Your task to perform on an android device: check storage Image 0: 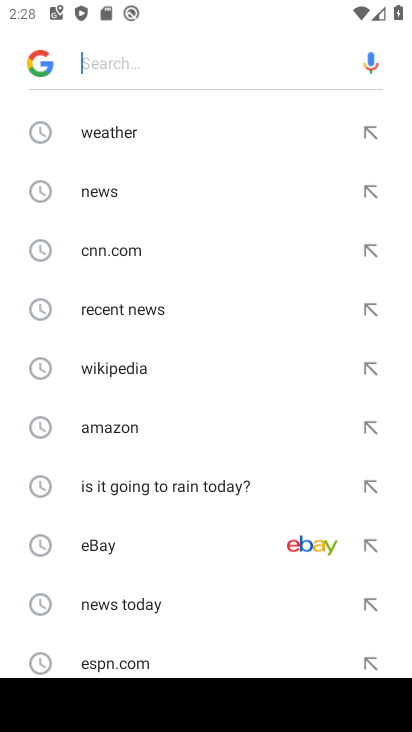
Step 0: press home button
Your task to perform on an android device: check storage Image 1: 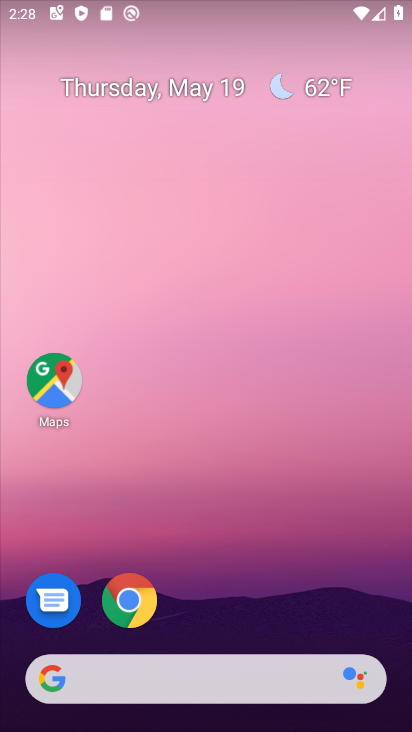
Step 1: drag from (35, 625) to (295, 73)
Your task to perform on an android device: check storage Image 2: 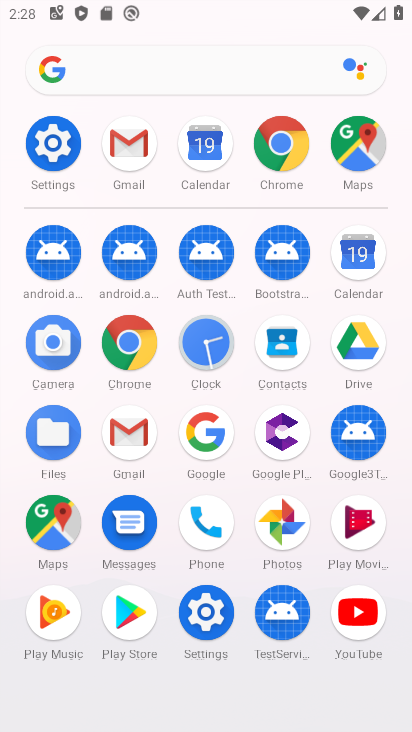
Step 2: click (70, 158)
Your task to perform on an android device: check storage Image 3: 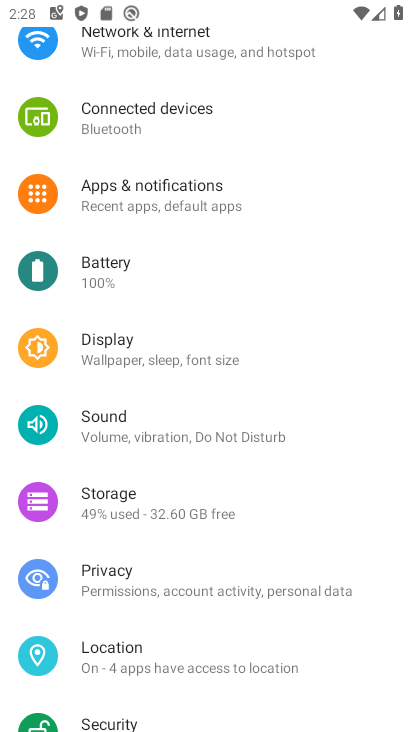
Step 3: click (110, 493)
Your task to perform on an android device: check storage Image 4: 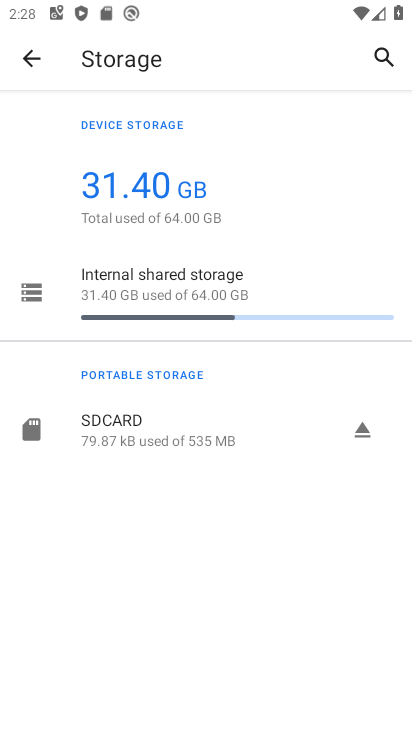
Step 4: task complete